Your task to perform on an android device: Open settings Image 0: 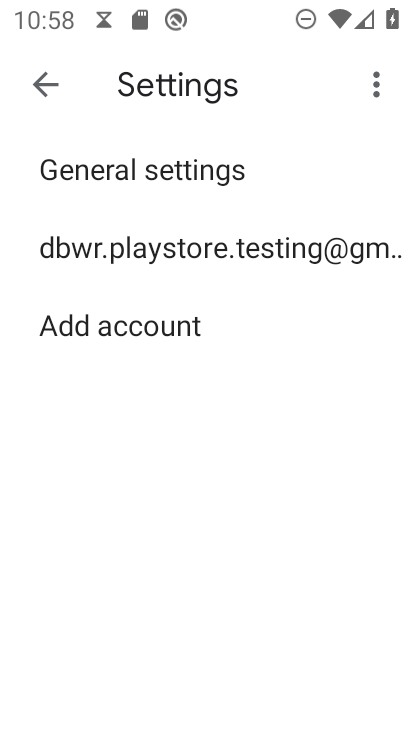
Step 0: press home button
Your task to perform on an android device: Open settings Image 1: 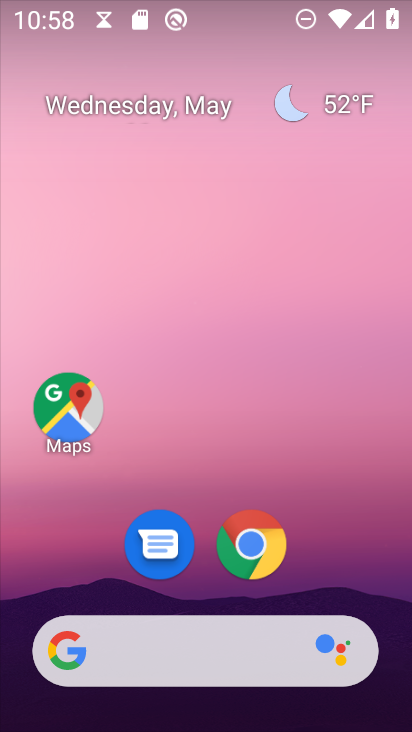
Step 1: drag from (188, 587) to (403, 2)
Your task to perform on an android device: Open settings Image 2: 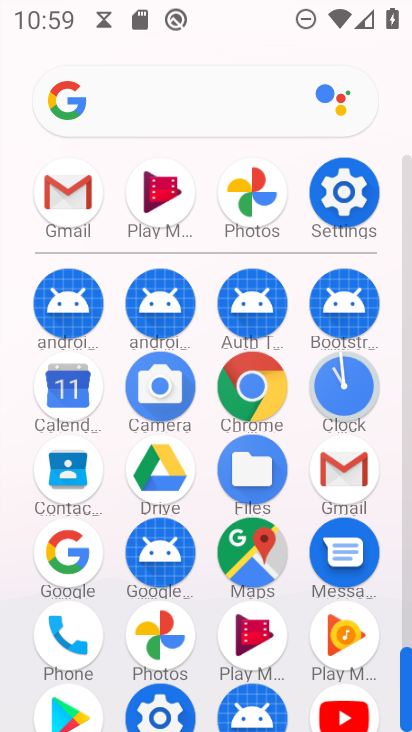
Step 2: click (340, 202)
Your task to perform on an android device: Open settings Image 3: 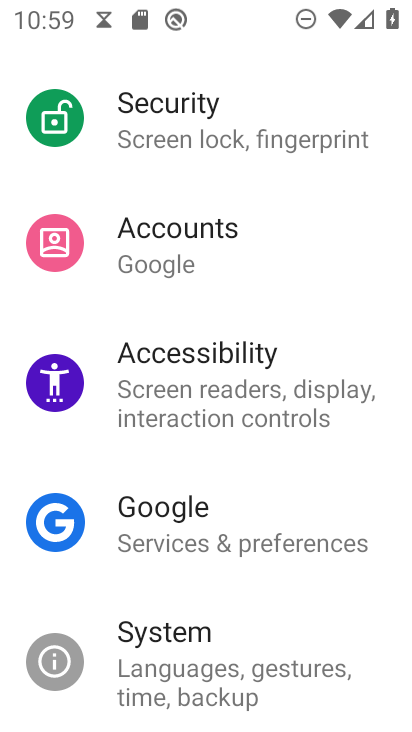
Step 3: task complete